Your task to perform on an android device: check battery use Image 0: 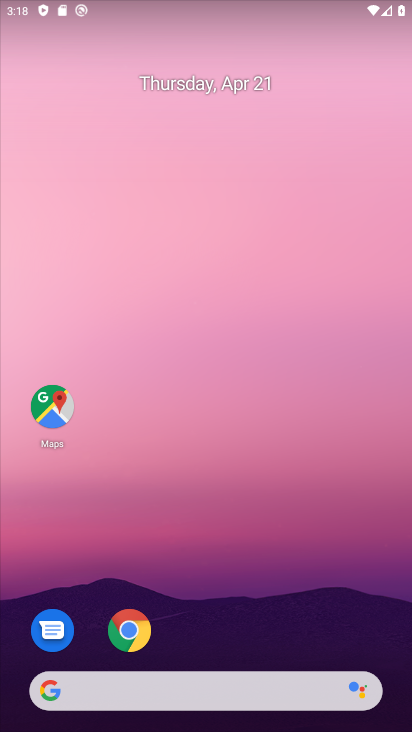
Step 0: drag from (345, 616) to (372, 20)
Your task to perform on an android device: check battery use Image 1: 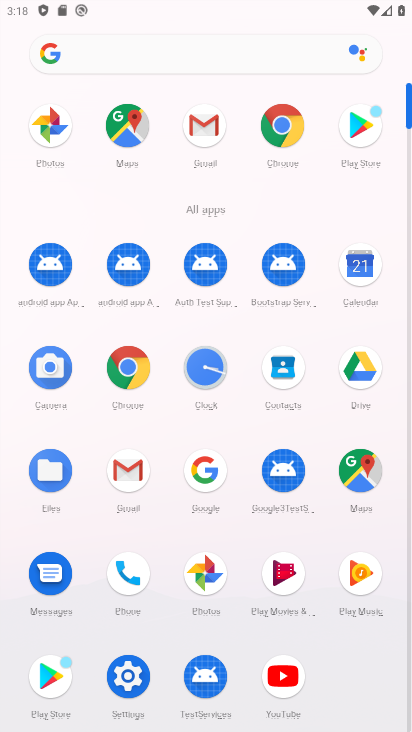
Step 1: click (131, 680)
Your task to perform on an android device: check battery use Image 2: 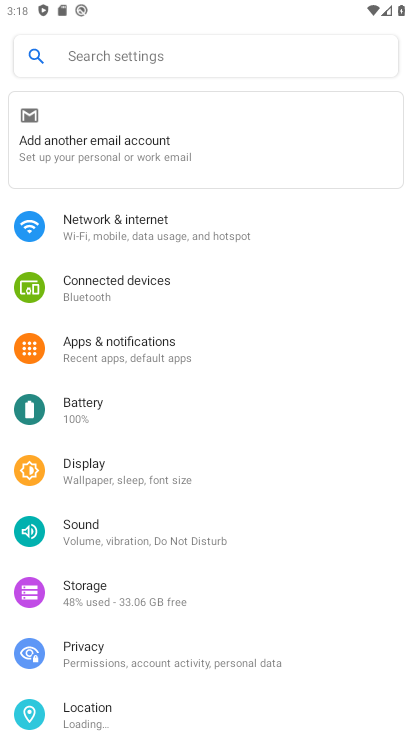
Step 2: click (99, 410)
Your task to perform on an android device: check battery use Image 3: 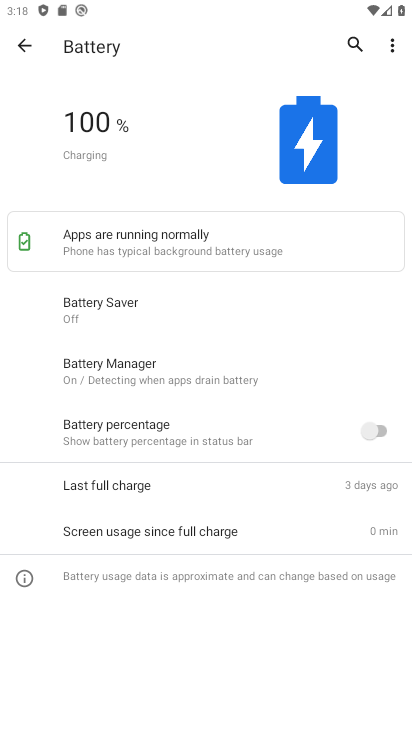
Step 3: click (398, 47)
Your task to perform on an android device: check battery use Image 4: 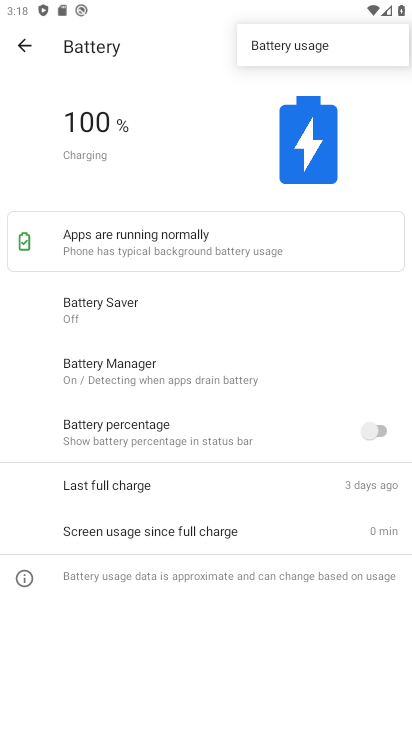
Step 4: click (295, 43)
Your task to perform on an android device: check battery use Image 5: 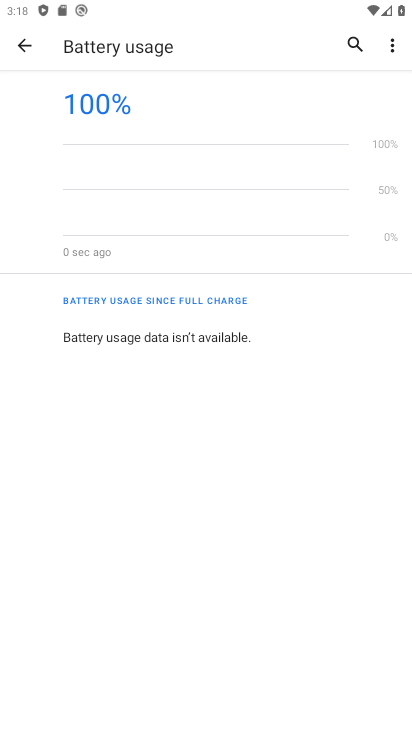
Step 5: task complete